Your task to perform on an android device: Open display settings Image 0: 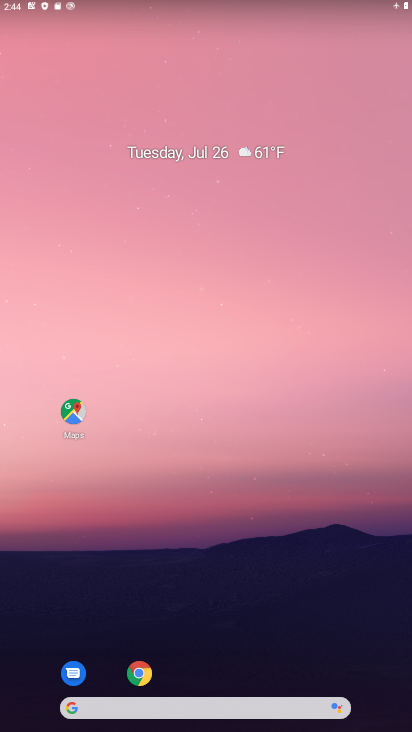
Step 0: drag from (198, 638) to (253, 36)
Your task to perform on an android device: Open display settings Image 1: 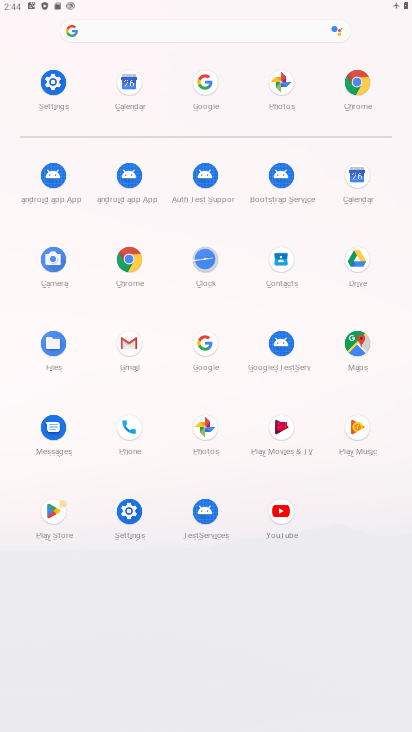
Step 1: click (133, 511)
Your task to perform on an android device: Open display settings Image 2: 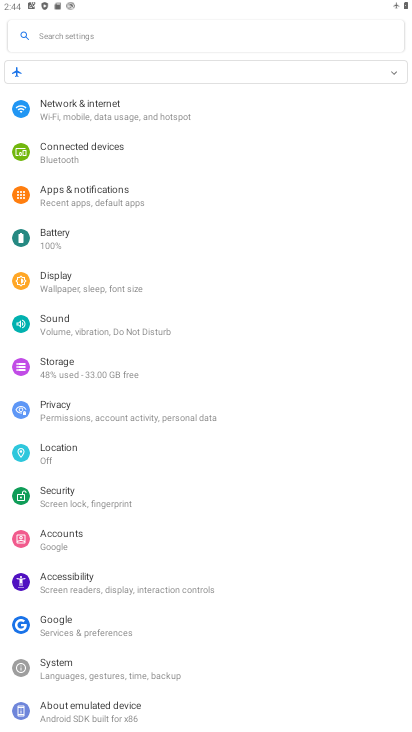
Step 2: click (102, 280)
Your task to perform on an android device: Open display settings Image 3: 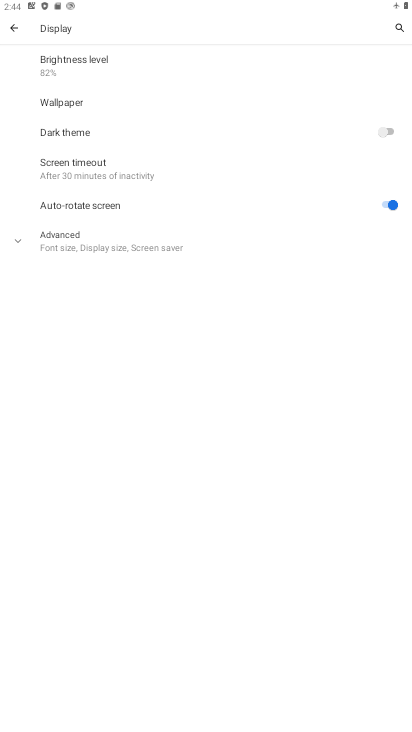
Step 3: task complete